Your task to perform on an android device: install app "DuckDuckGo Privacy Browser" Image 0: 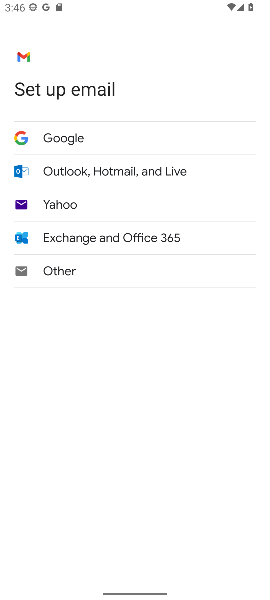
Step 0: press home button
Your task to perform on an android device: install app "DuckDuckGo Privacy Browser" Image 1: 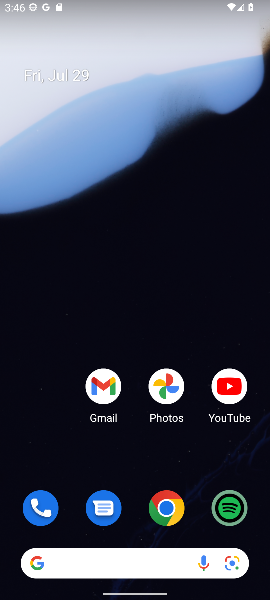
Step 1: drag from (239, 567) to (116, 47)
Your task to perform on an android device: install app "DuckDuckGo Privacy Browser" Image 2: 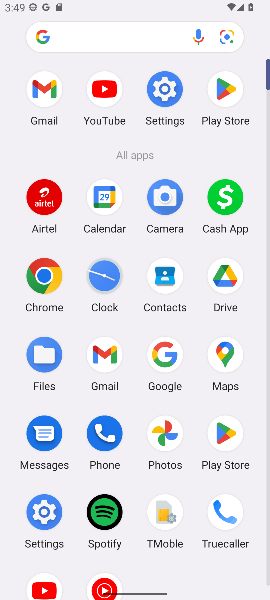
Step 2: click (223, 443)
Your task to perform on an android device: install app "DuckDuckGo Privacy Browser" Image 3: 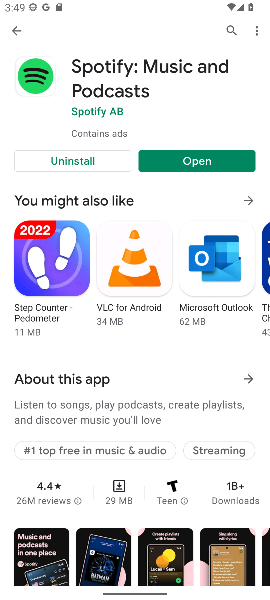
Step 3: press back button
Your task to perform on an android device: install app "DuckDuckGo Privacy Browser" Image 4: 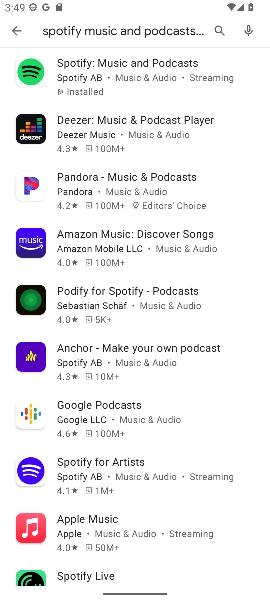
Step 4: press back button
Your task to perform on an android device: install app "DuckDuckGo Privacy Browser" Image 5: 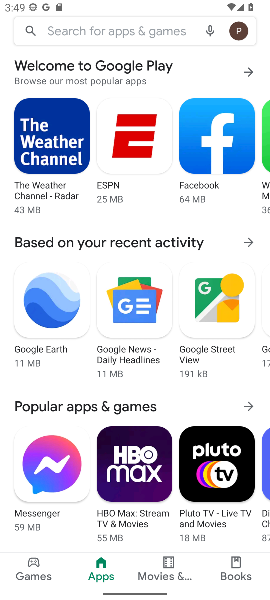
Step 5: click (101, 39)
Your task to perform on an android device: install app "DuckDuckGo Privacy Browser" Image 6: 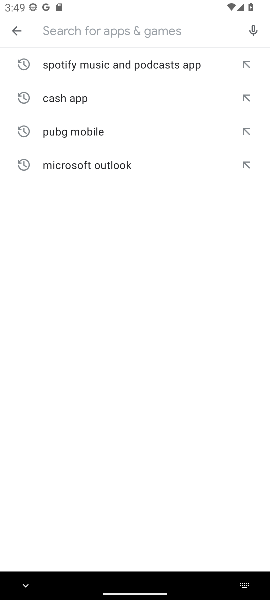
Step 6: type "DuckDuckGo Privacy Browser"
Your task to perform on an android device: install app "DuckDuckGo Privacy Browser" Image 7: 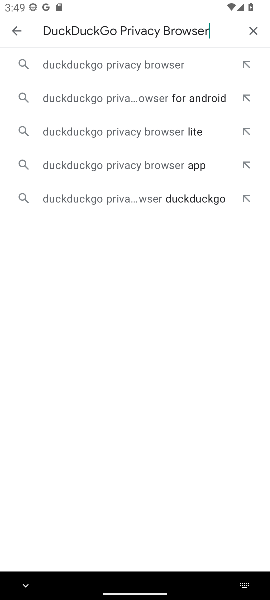
Step 7: click (83, 66)
Your task to perform on an android device: install app "DuckDuckGo Privacy Browser" Image 8: 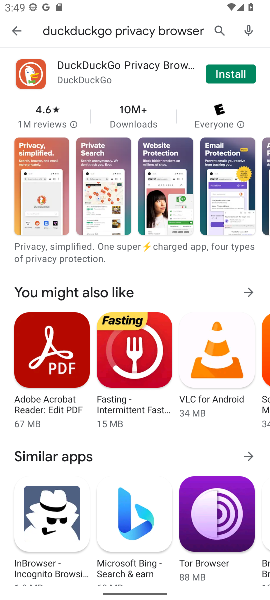
Step 8: click (220, 74)
Your task to perform on an android device: install app "DuckDuckGo Privacy Browser" Image 9: 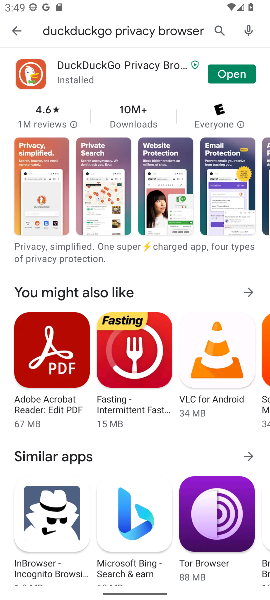
Step 9: task complete